Your task to perform on an android device: clear all cookies in the chrome app Image 0: 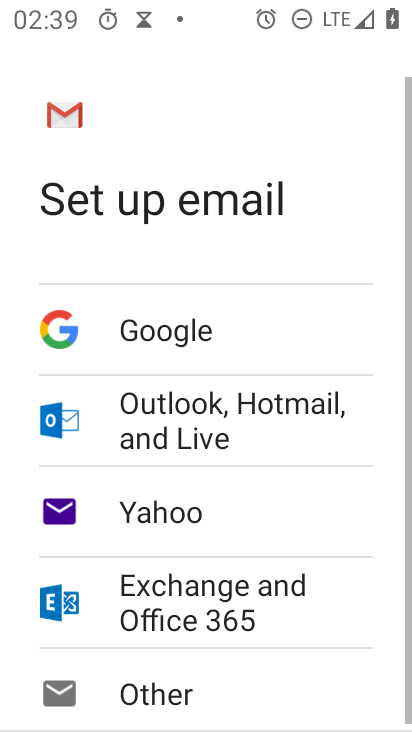
Step 0: press home button
Your task to perform on an android device: clear all cookies in the chrome app Image 1: 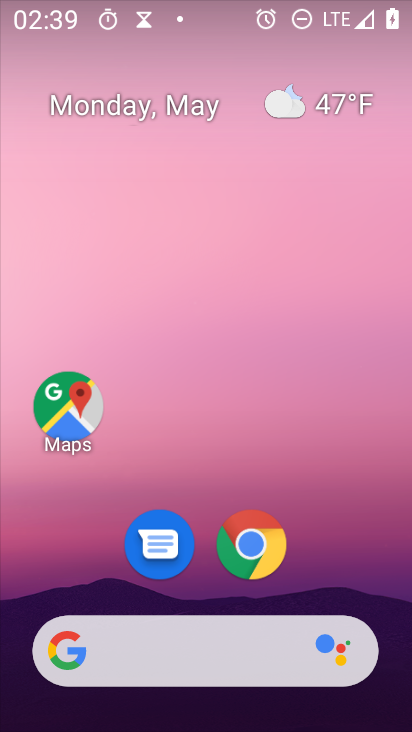
Step 1: drag from (339, 605) to (326, 46)
Your task to perform on an android device: clear all cookies in the chrome app Image 2: 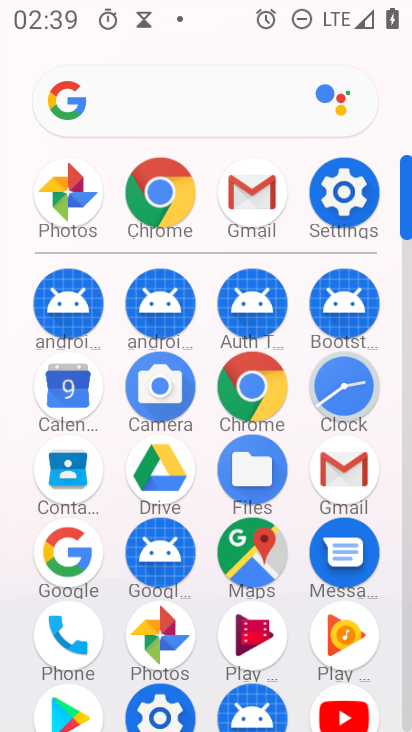
Step 2: click (263, 396)
Your task to perform on an android device: clear all cookies in the chrome app Image 3: 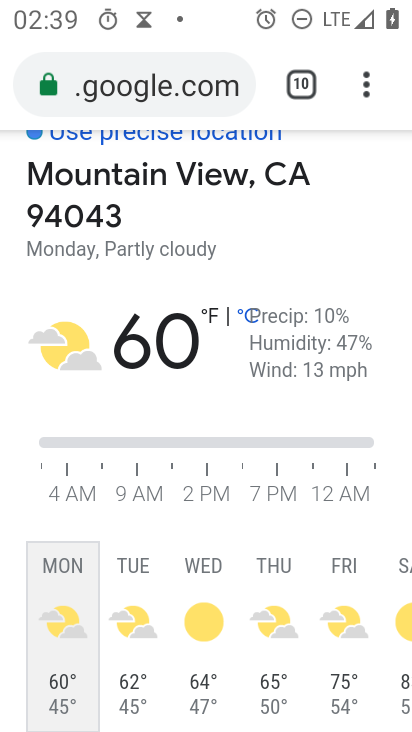
Step 3: drag from (352, 74) to (182, 591)
Your task to perform on an android device: clear all cookies in the chrome app Image 4: 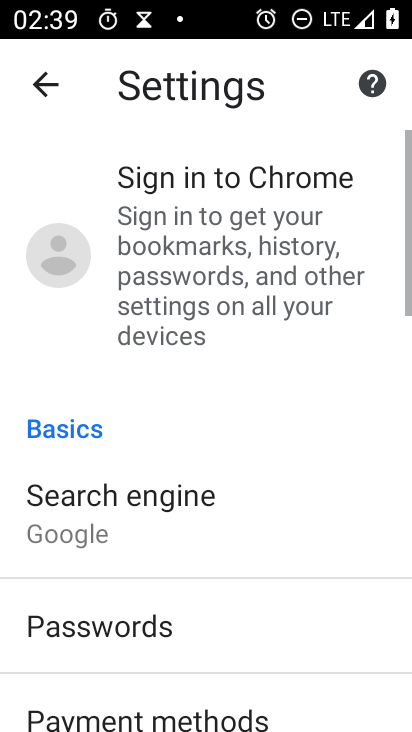
Step 4: drag from (216, 688) to (258, 68)
Your task to perform on an android device: clear all cookies in the chrome app Image 5: 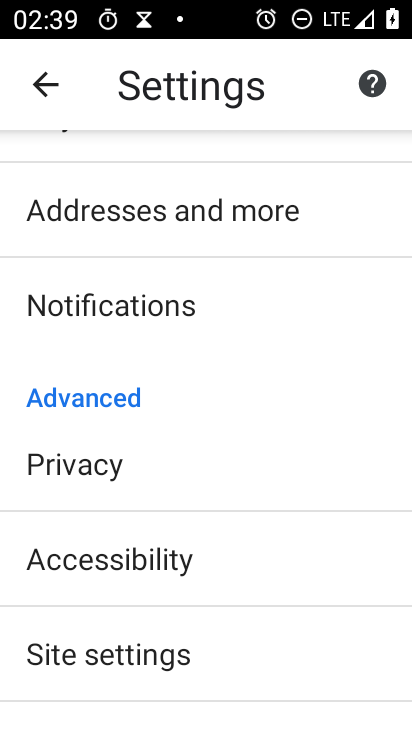
Step 5: click (122, 476)
Your task to perform on an android device: clear all cookies in the chrome app Image 6: 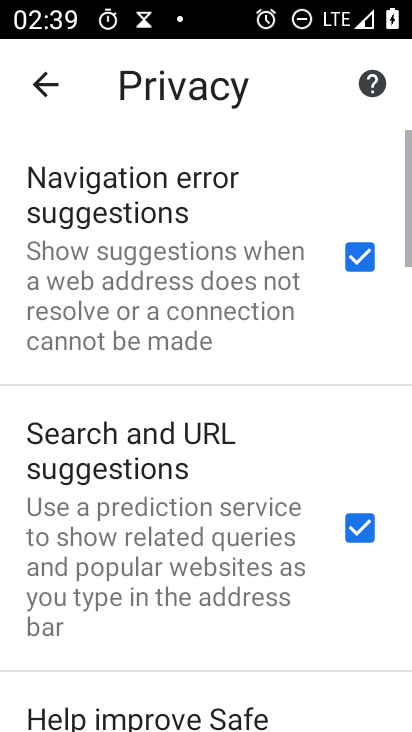
Step 6: drag from (211, 619) to (249, 55)
Your task to perform on an android device: clear all cookies in the chrome app Image 7: 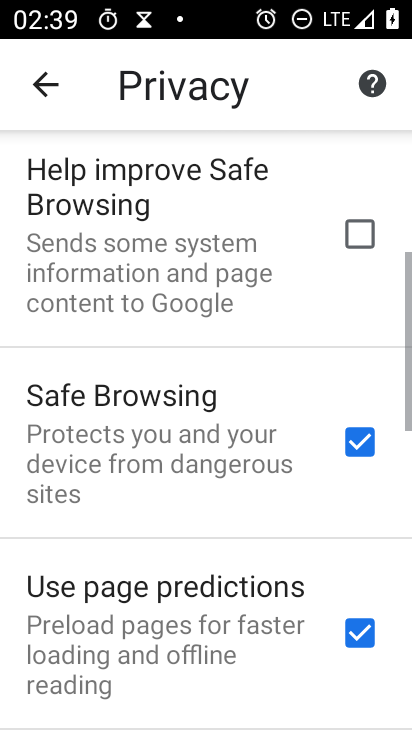
Step 7: drag from (199, 623) to (250, 78)
Your task to perform on an android device: clear all cookies in the chrome app Image 8: 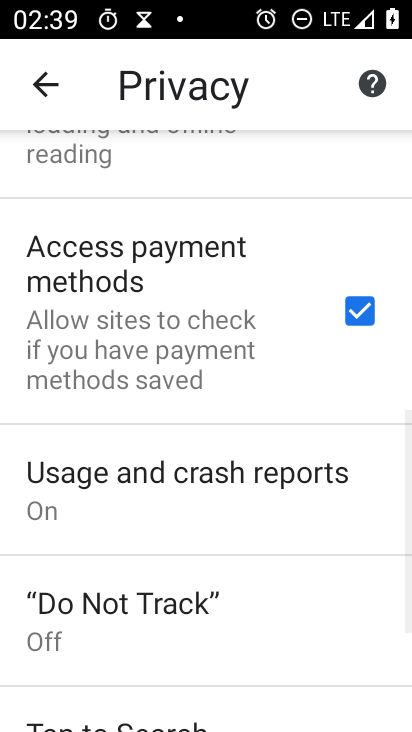
Step 8: drag from (217, 638) to (227, 172)
Your task to perform on an android device: clear all cookies in the chrome app Image 9: 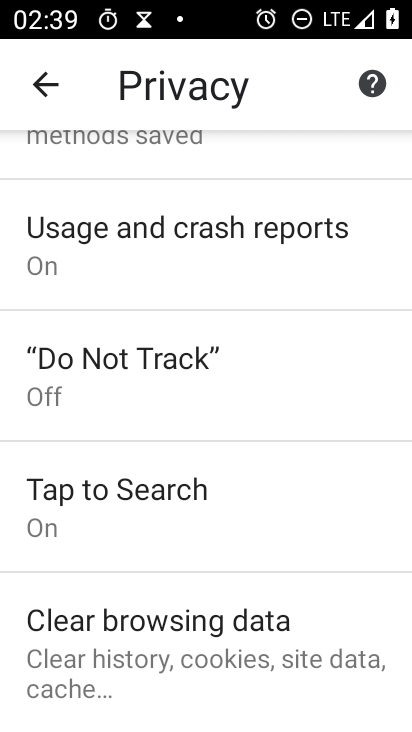
Step 9: click (204, 640)
Your task to perform on an android device: clear all cookies in the chrome app Image 10: 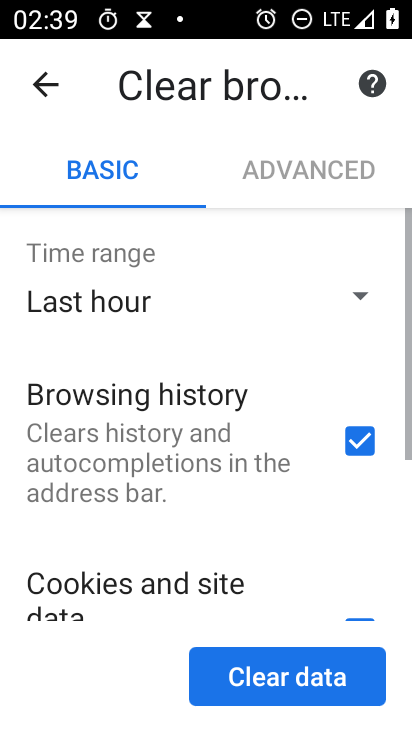
Step 10: click (335, 692)
Your task to perform on an android device: clear all cookies in the chrome app Image 11: 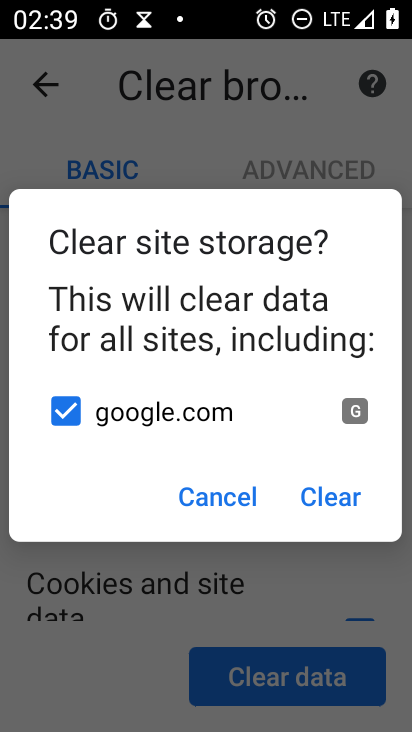
Step 11: click (342, 500)
Your task to perform on an android device: clear all cookies in the chrome app Image 12: 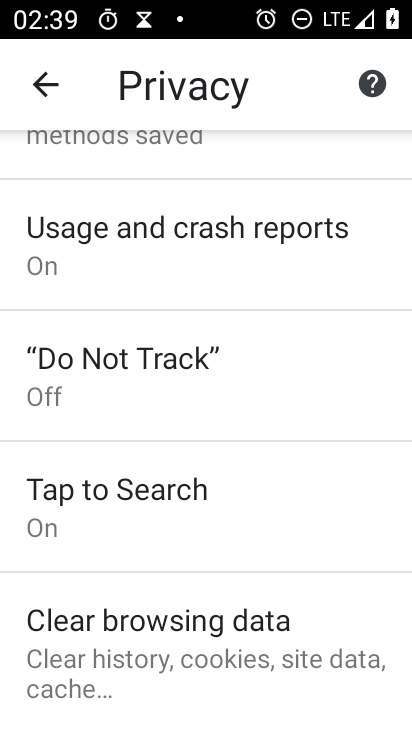
Step 12: task complete